Your task to perform on an android device: Open display settings Image 0: 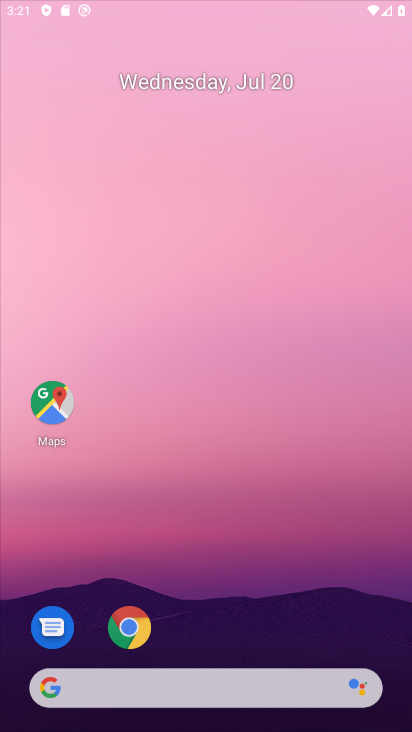
Step 0: press home button
Your task to perform on an android device: Open display settings Image 1: 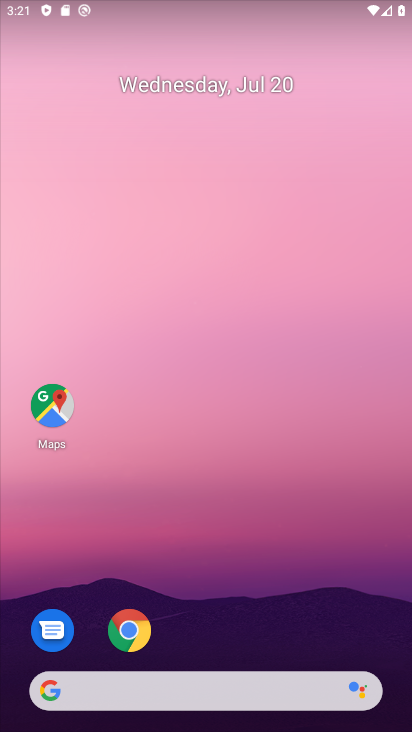
Step 1: drag from (273, 643) to (318, 15)
Your task to perform on an android device: Open display settings Image 2: 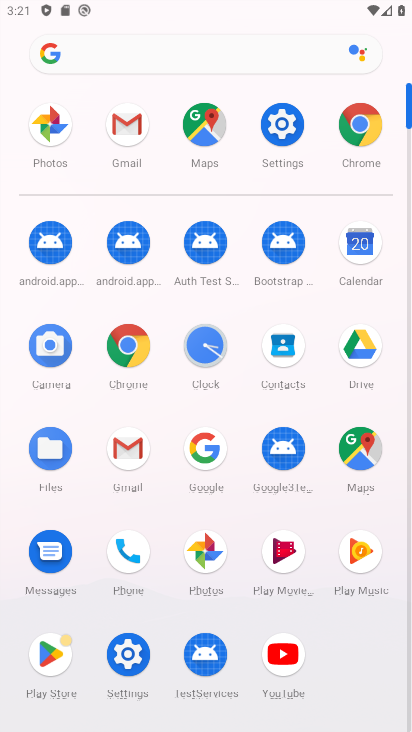
Step 2: click (283, 134)
Your task to perform on an android device: Open display settings Image 3: 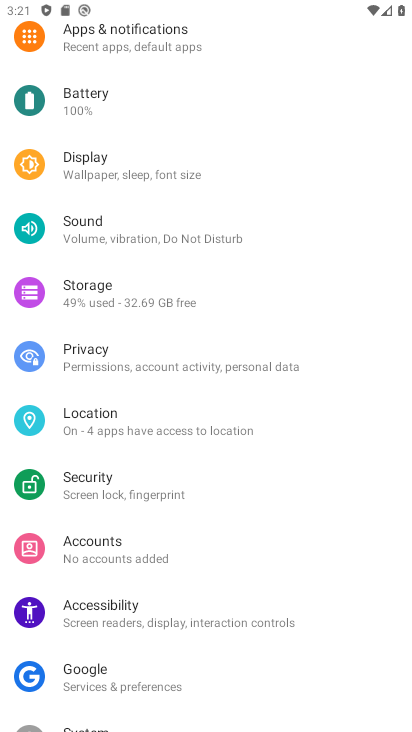
Step 3: click (84, 165)
Your task to perform on an android device: Open display settings Image 4: 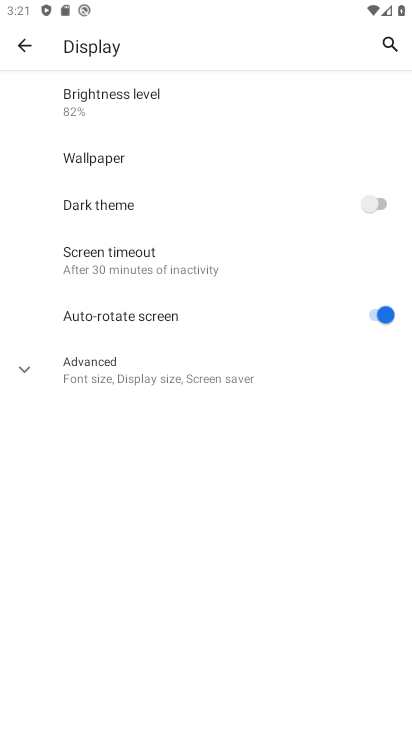
Step 4: task complete